Your task to perform on an android device: Go to Maps Image 0: 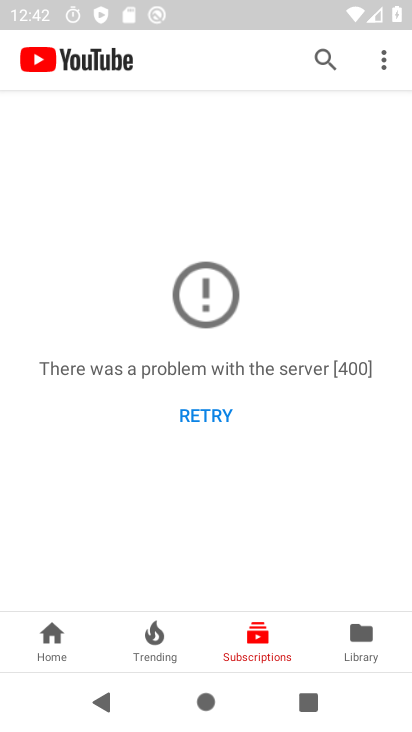
Step 0: press back button
Your task to perform on an android device: Go to Maps Image 1: 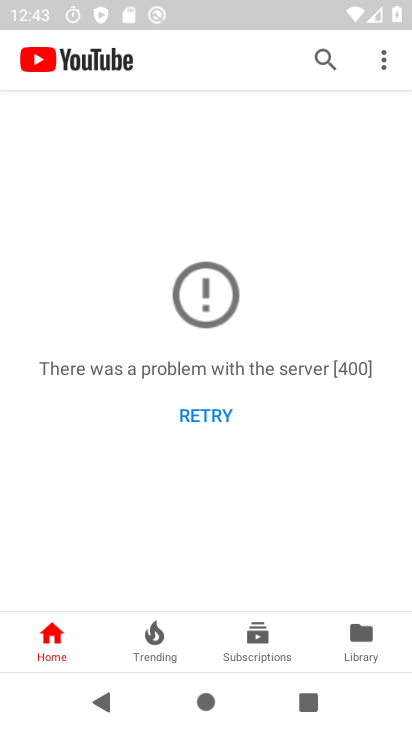
Step 1: press back button
Your task to perform on an android device: Go to Maps Image 2: 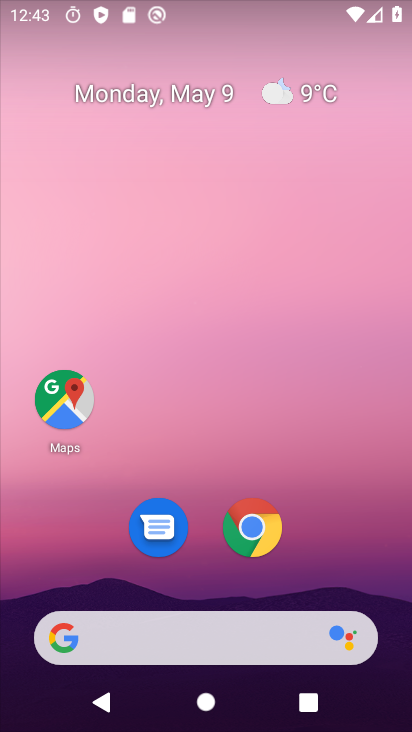
Step 2: click (59, 392)
Your task to perform on an android device: Go to Maps Image 3: 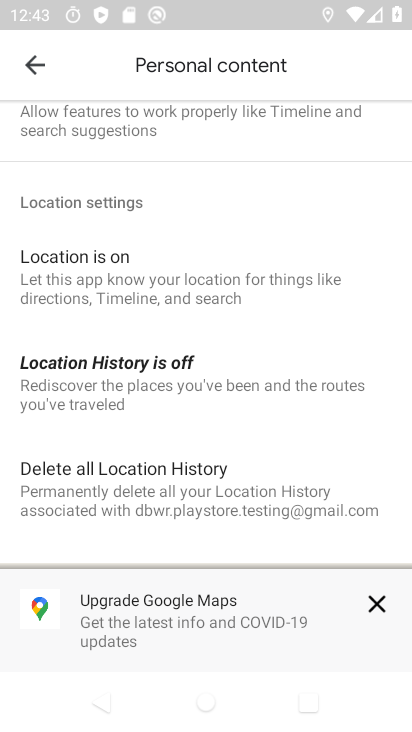
Step 3: task complete